Your task to perform on an android device: Play the last video I watched on Youtube Image 0: 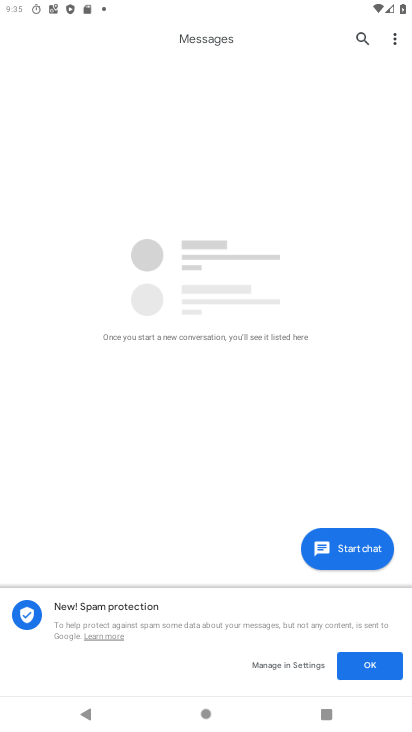
Step 0: press home button
Your task to perform on an android device: Play the last video I watched on Youtube Image 1: 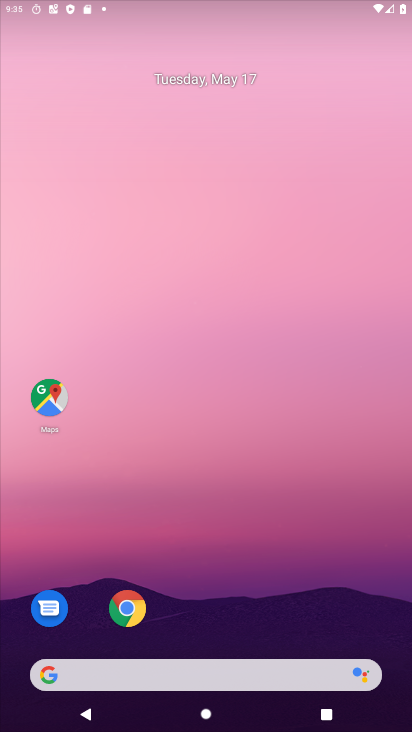
Step 1: drag from (285, 584) to (265, 230)
Your task to perform on an android device: Play the last video I watched on Youtube Image 2: 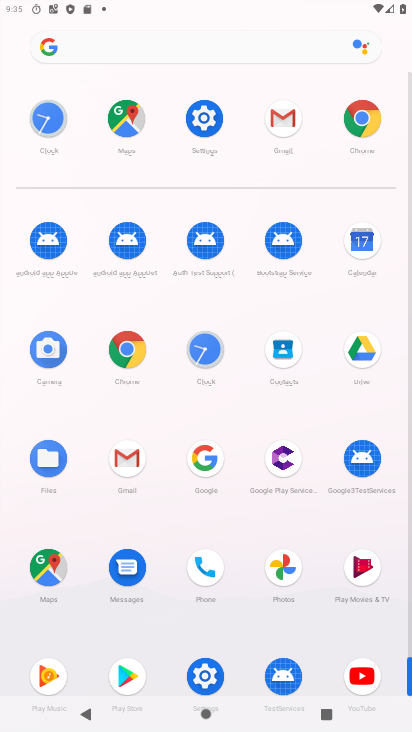
Step 2: click (366, 672)
Your task to perform on an android device: Play the last video I watched on Youtube Image 3: 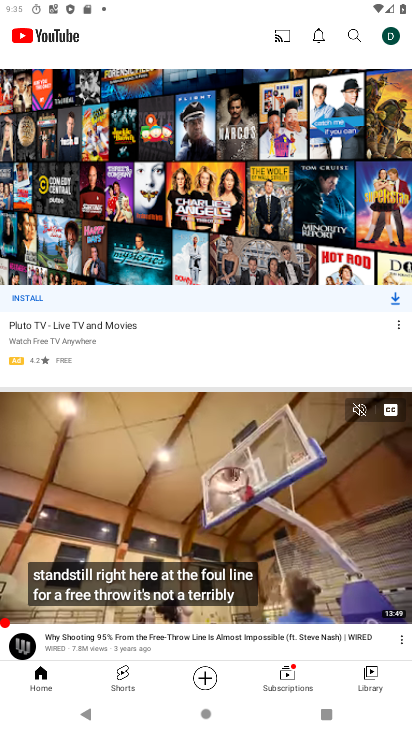
Step 3: click (377, 682)
Your task to perform on an android device: Play the last video I watched on Youtube Image 4: 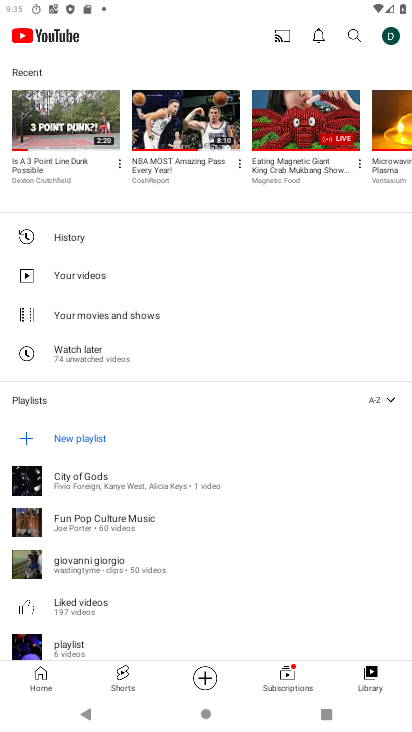
Step 4: task complete